Your task to perform on an android device: Open eBay Image 0: 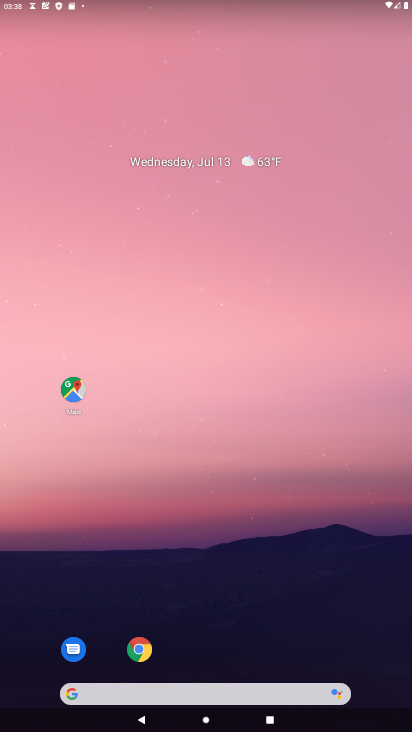
Step 0: click (148, 655)
Your task to perform on an android device: Open eBay Image 1: 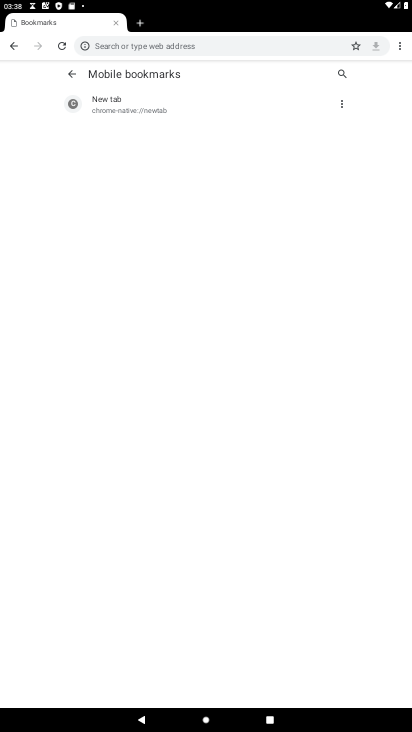
Step 1: click (126, 48)
Your task to perform on an android device: Open eBay Image 2: 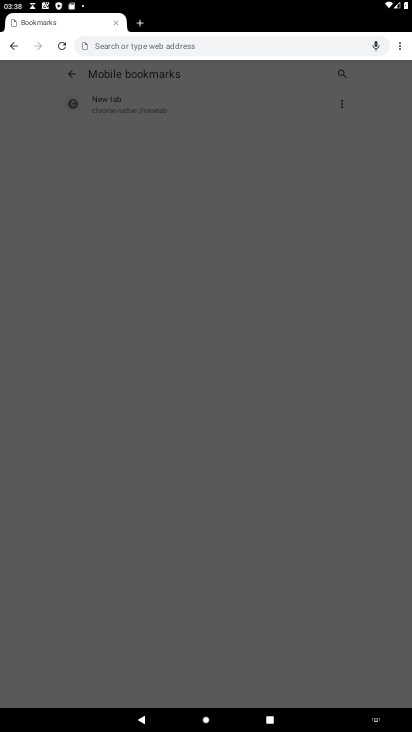
Step 2: type "ebay"
Your task to perform on an android device: Open eBay Image 3: 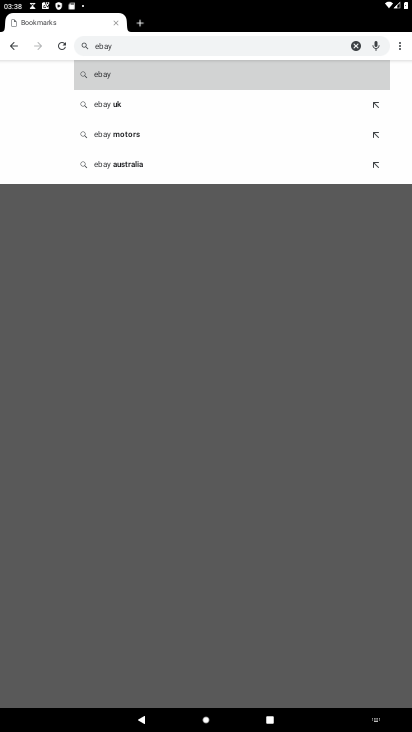
Step 3: click (99, 76)
Your task to perform on an android device: Open eBay Image 4: 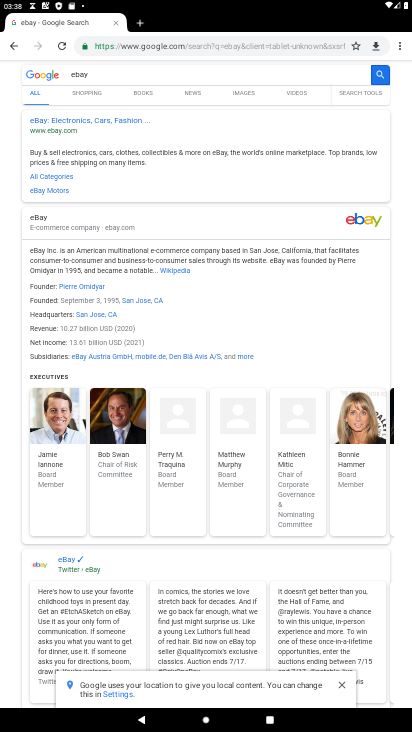
Step 4: click (69, 121)
Your task to perform on an android device: Open eBay Image 5: 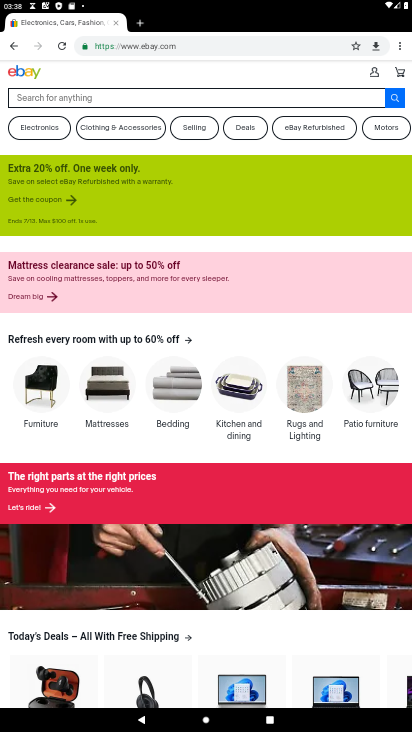
Step 5: task complete